Your task to perform on an android device: check data usage Image 0: 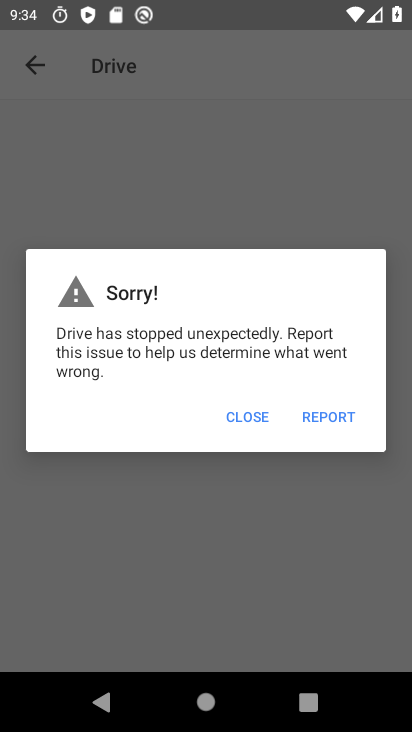
Step 0: press home button
Your task to perform on an android device: check data usage Image 1: 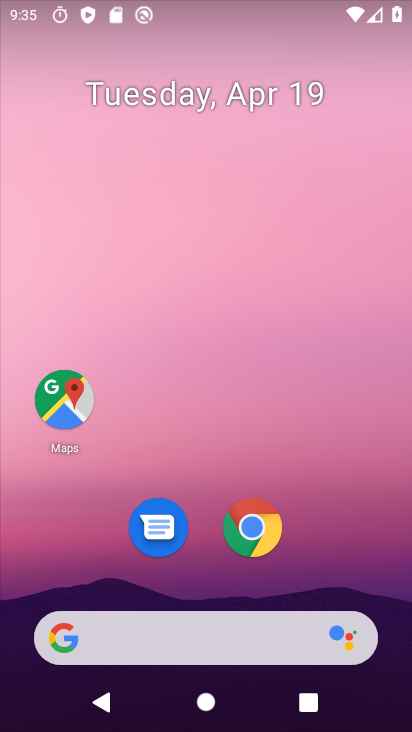
Step 1: drag from (257, 675) to (325, 183)
Your task to perform on an android device: check data usage Image 2: 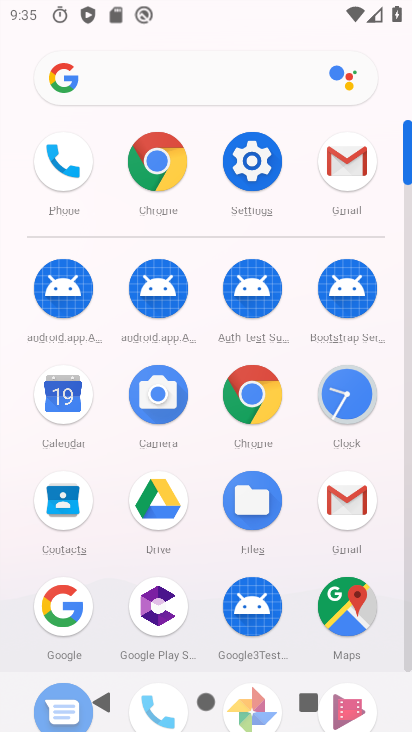
Step 2: click (248, 169)
Your task to perform on an android device: check data usage Image 3: 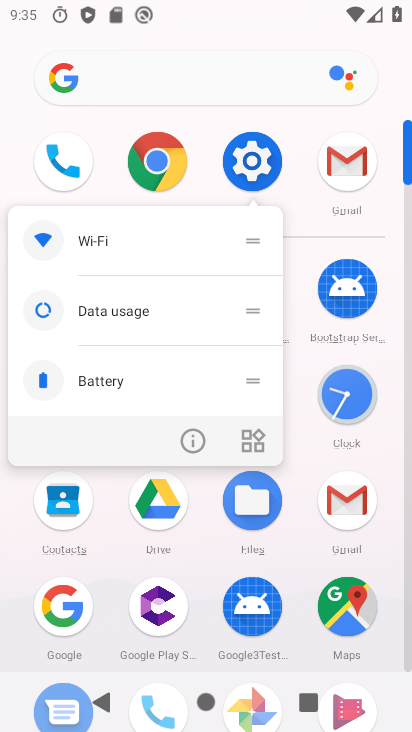
Step 3: click (248, 169)
Your task to perform on an android device: check data usage Image 4: 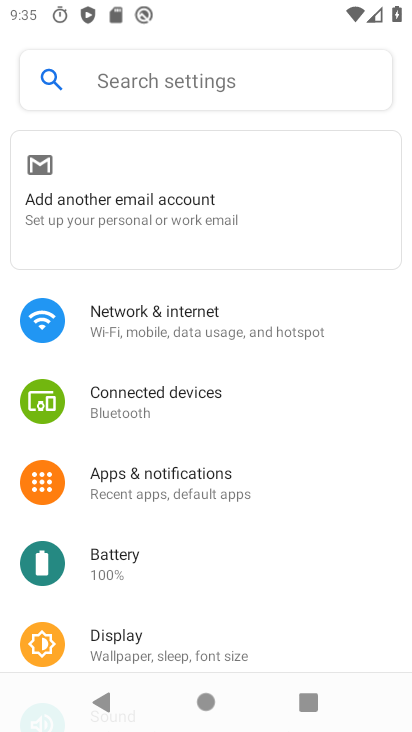
Step 4: click (161, 82)
Your task to perform on an android device: check data usage Image 5: 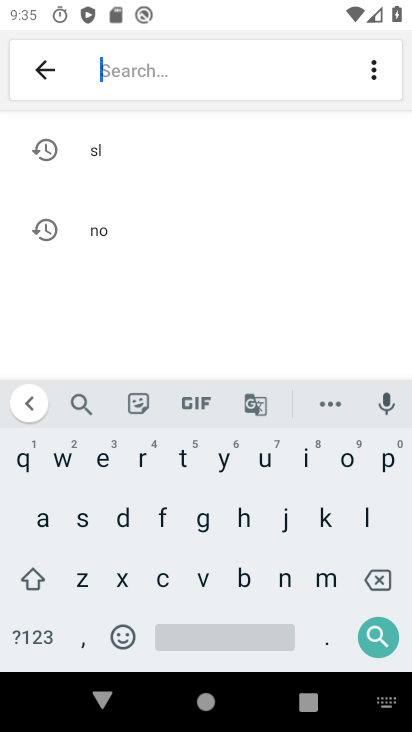
Step 5: click (128, 525)
Your task to perform on an android device: check data usage Image 6: 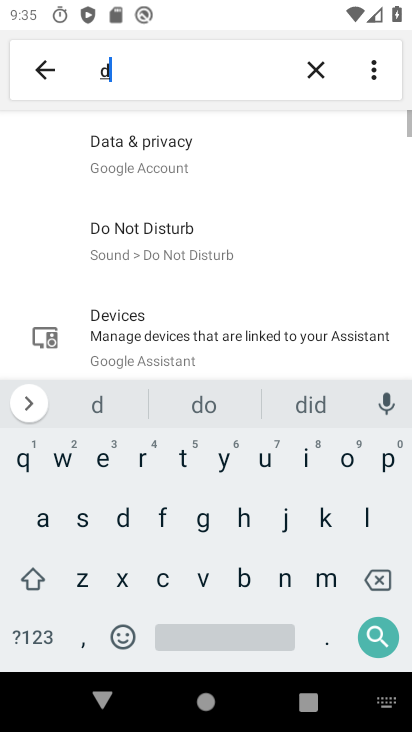
Step 6: click (44, 517)
Your task to perform on an android device: check data usage Image 7: 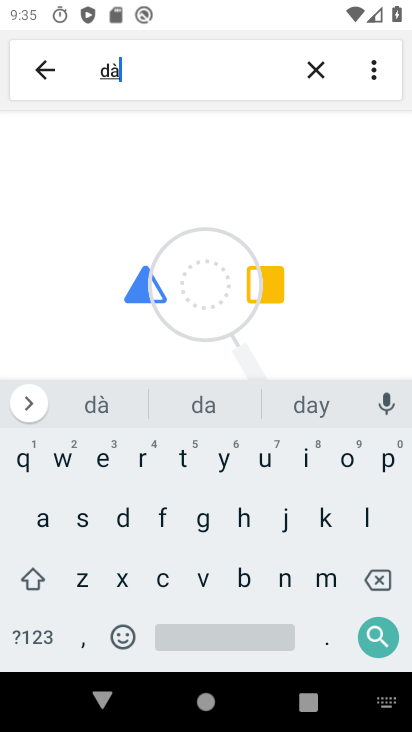
Step 7: click (178, 463)
Your task to perform on an android device: check data usage Image 8: 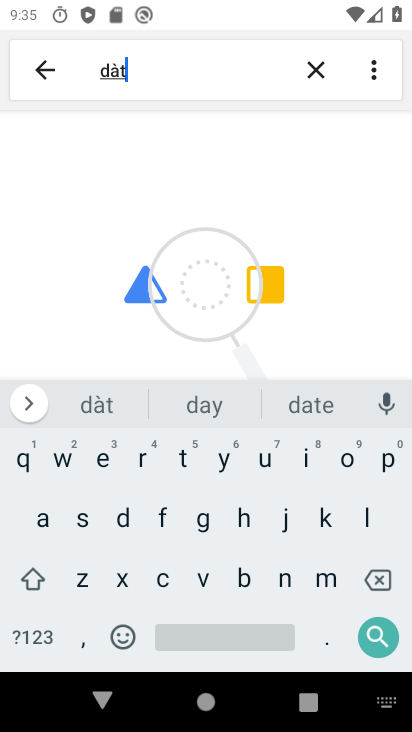
Step 8: click (380, 576)
Your task to perform on an android device: check data usage Image 9: 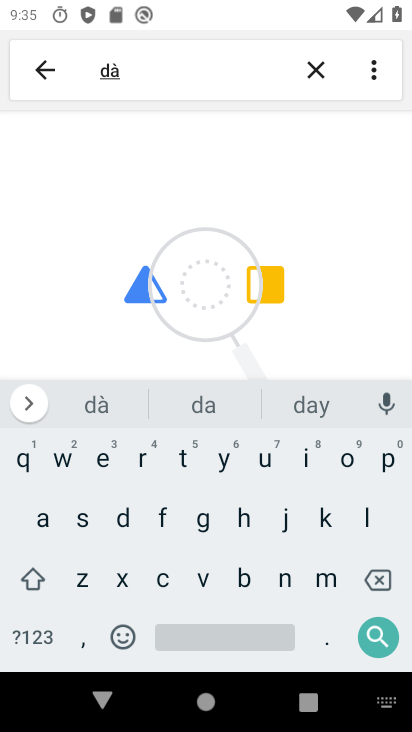
Step 9: click (379, 577)
Your task to perform on an android device: check data usage Image 10: 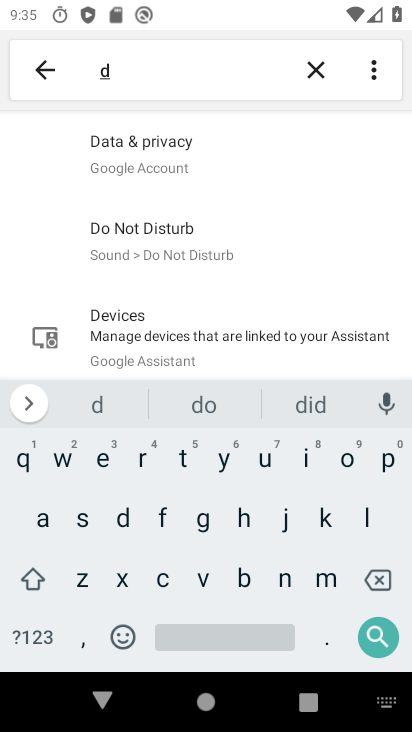
Step 10: click (36, 532)
Your task to perform on an android device: check data usage Image 11: 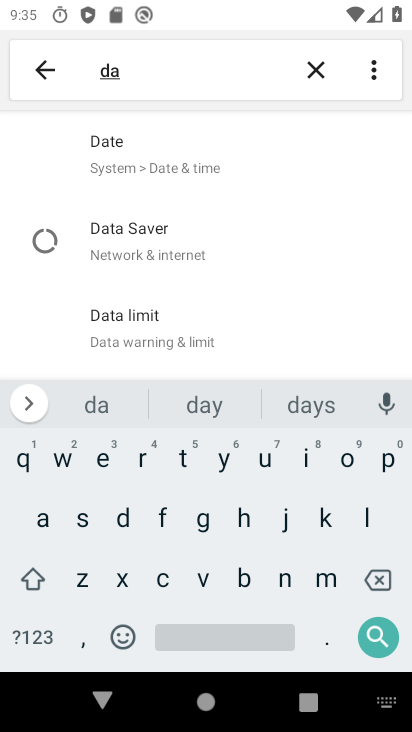
Step 11: click (185, 464)
Your task to perform on an android device: check data usage Image 12: 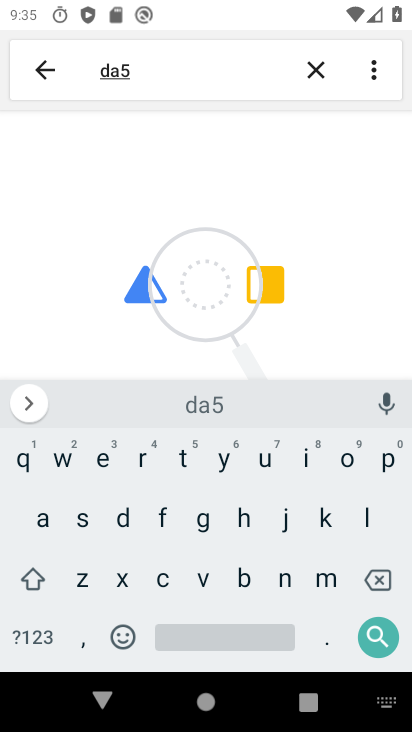
Step 12: click (378, 586)
Your task to perform on an android device: check data usage Image 13: 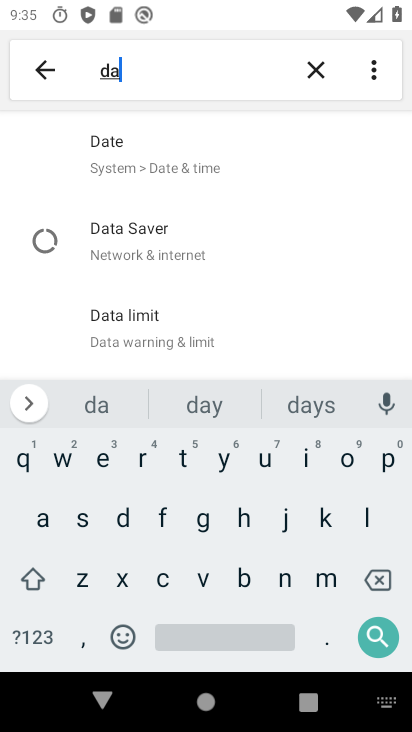
Step 13: click (182, 469)
Your task to perform on an android device: check data usage Image 14: 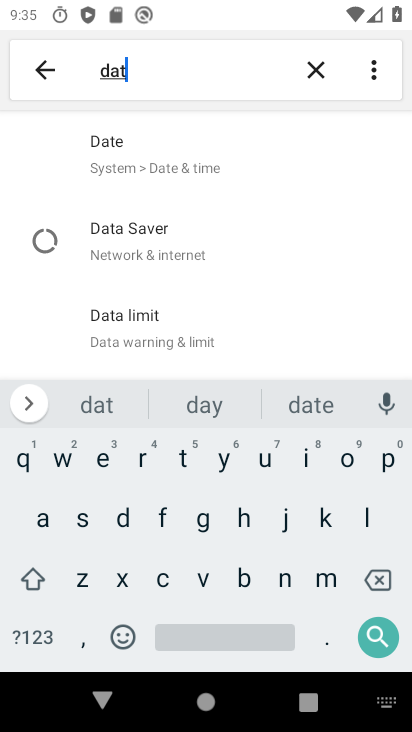
Step 14: click (43, 523)
Your task to perform on an android device: check data usage Image 15: 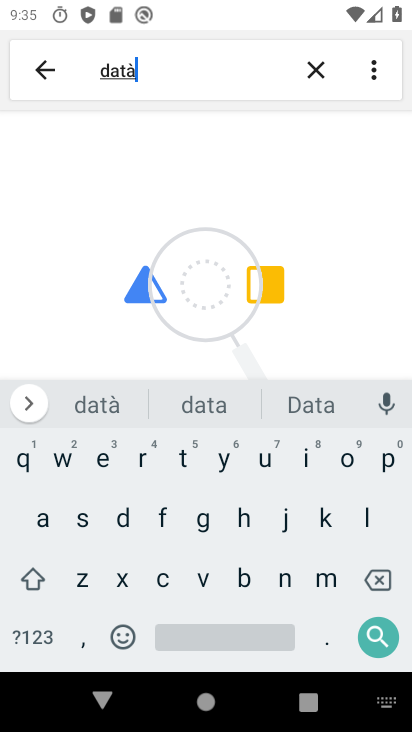
Step 15: click (374, 576)
Your task to perform on an android device: check data usage Image 16: 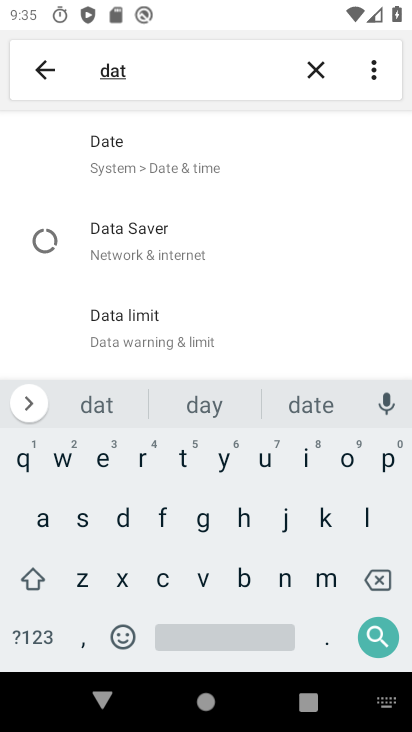
Step 16: click (45, 519)
Your task to perform on an android device: check data usage Image 17: 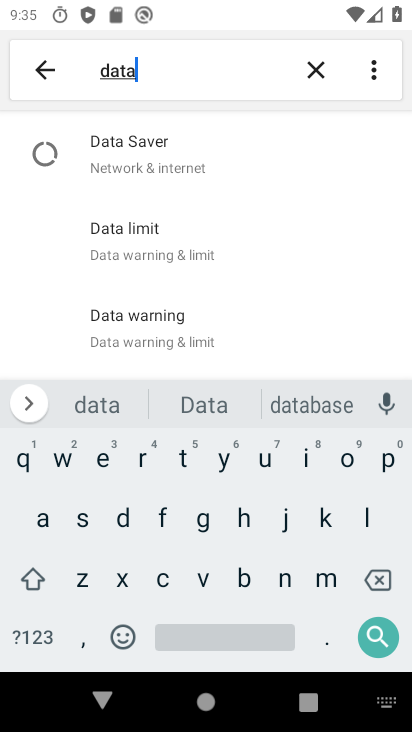
Step 17: click (207, 633)
Your task to perform on an android device: check data usage Image 18: 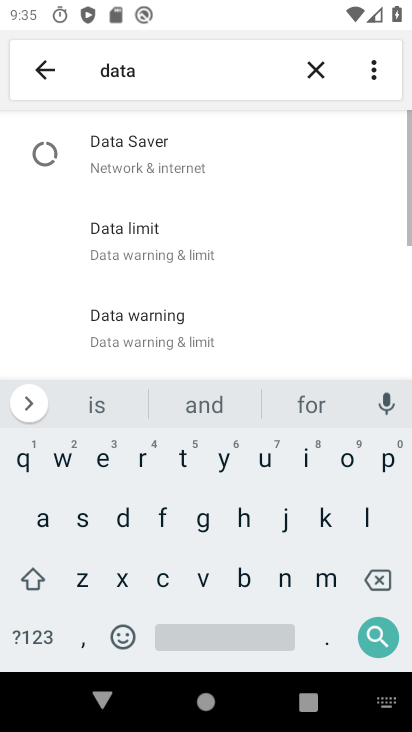
Step 18: click (264, 461)
Your task to perform on an android device: check data usage Image 19: 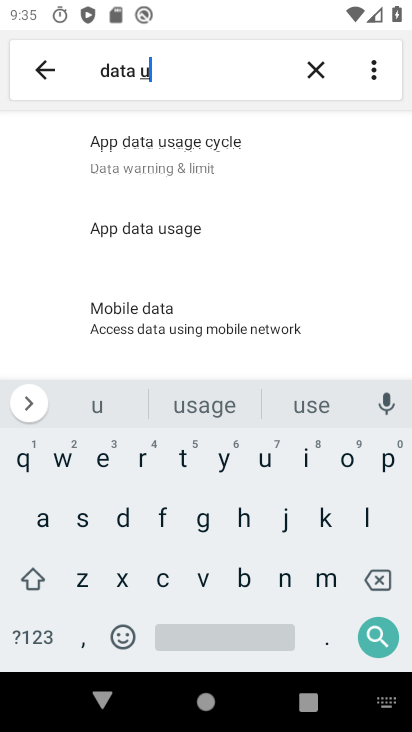
Step 19: click (153, 231)
Your task to perform on an android device: check data usage Image 20: 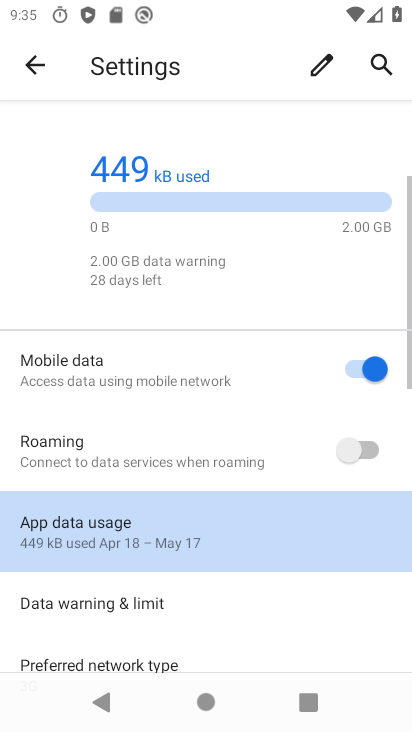
Step 20: click (126, 526)
Your task to perform on an android device: check data usage Image 21: 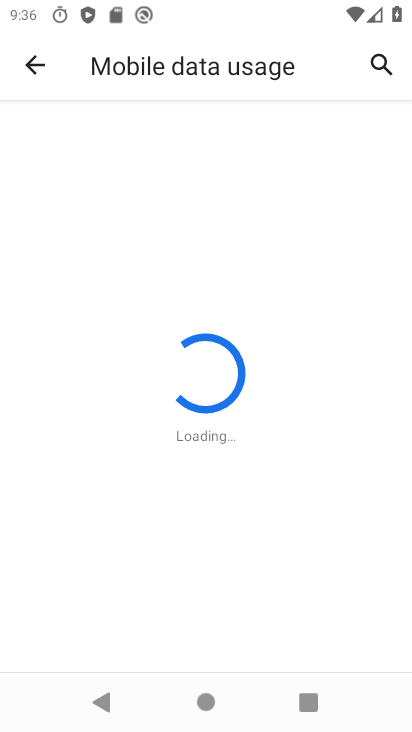
Step 21: task complete